Your task to perform on an android device: set default search engine in the chrome app Image 0: 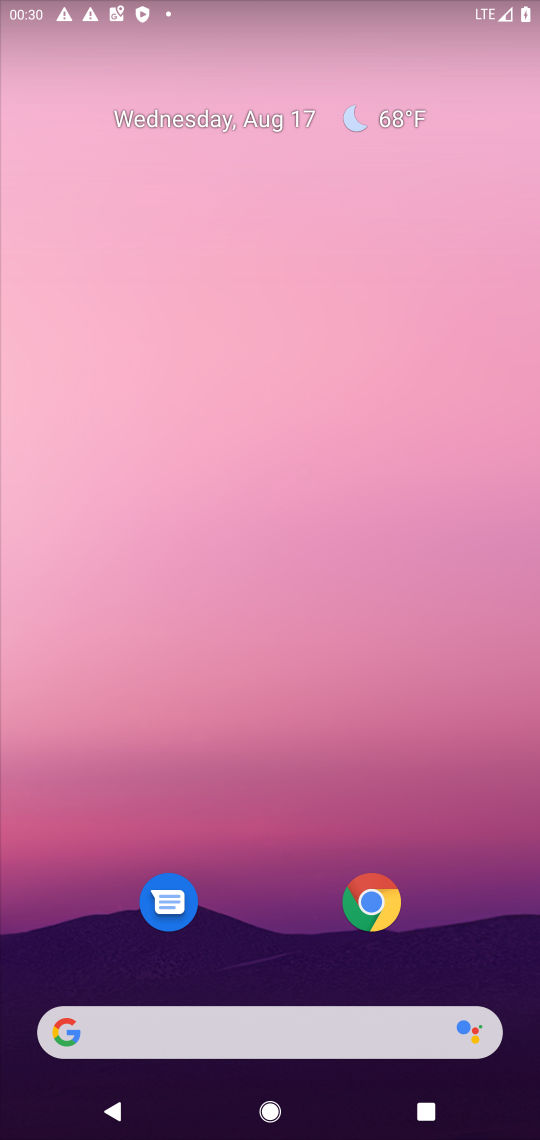
Step 0: drag from (251, 971) to (435, 241)
Your task to perform on an android device: set default search engine in the chrome app Image 1: 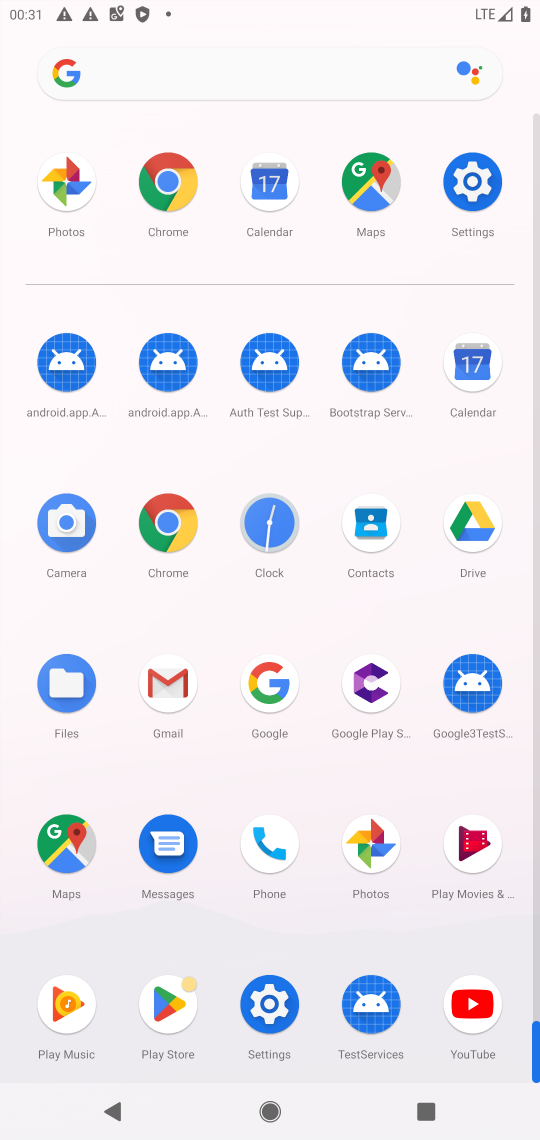
Step 1: click (181, 507)
Your task to perform on an android device: set default search engine in the chrome app Image 2: 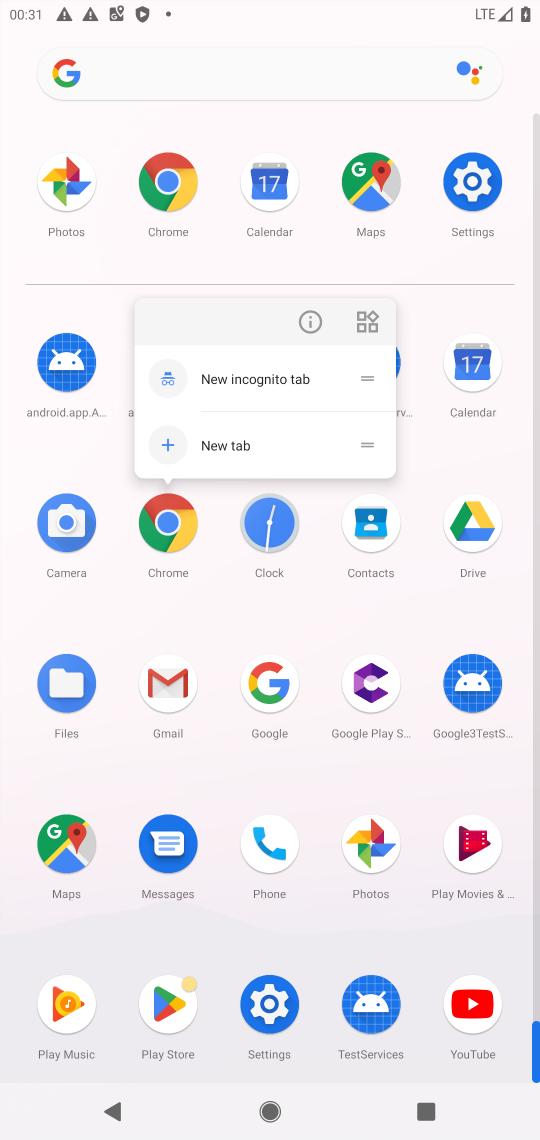
Step 2: click (181, 507)
Your task to perform on an android device: set default search engine in the chrome app Image 3: 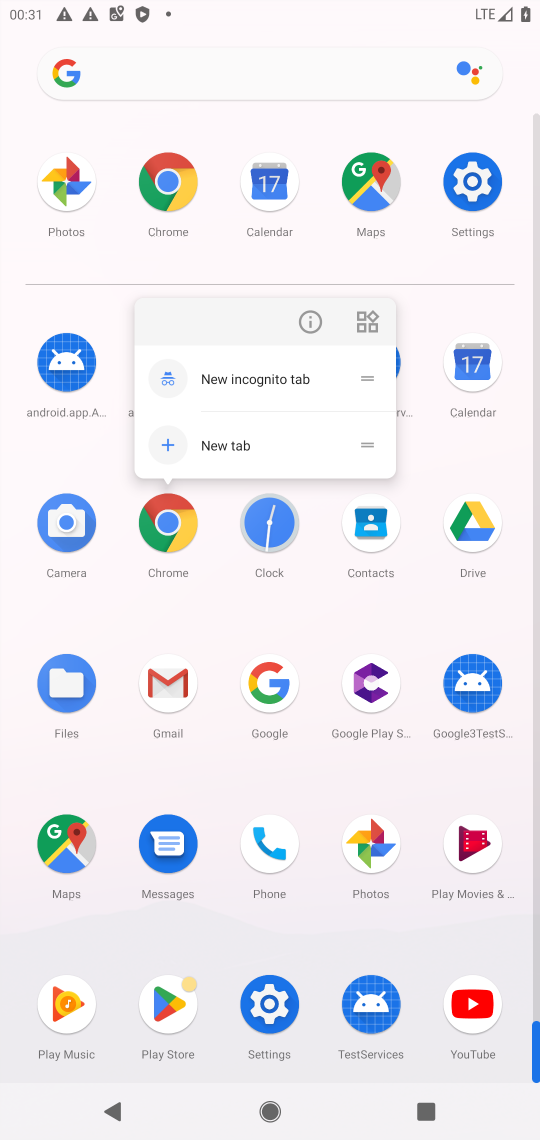
Step 3: click (183, 508)
Your task to perform on an android device: set default search engine in the chrome app Image 4: 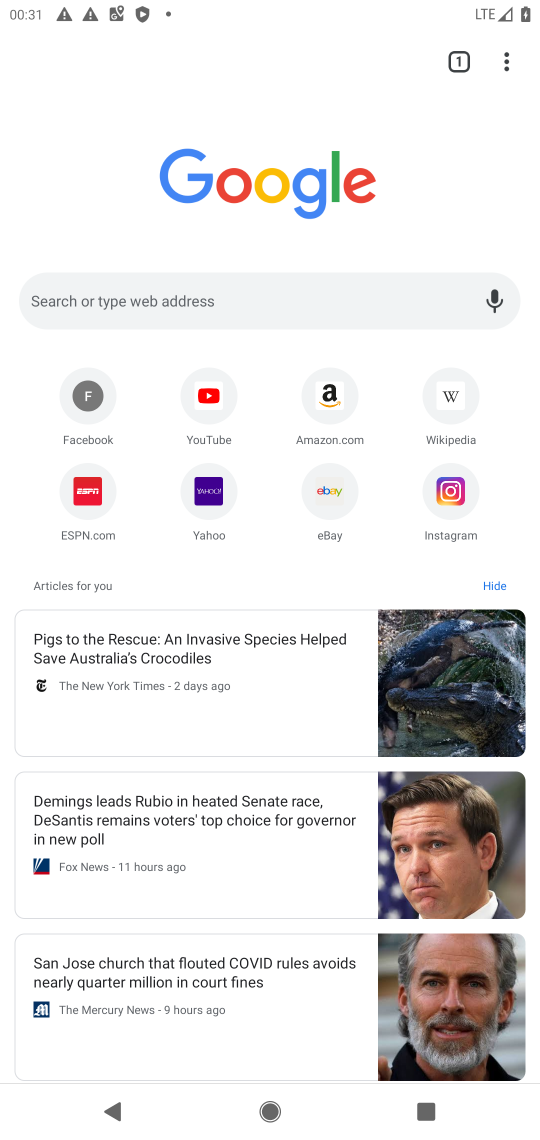
Step 4: click (499, 64)
Your task to perform on an android device: set default search engine in the chrome app Image 5: 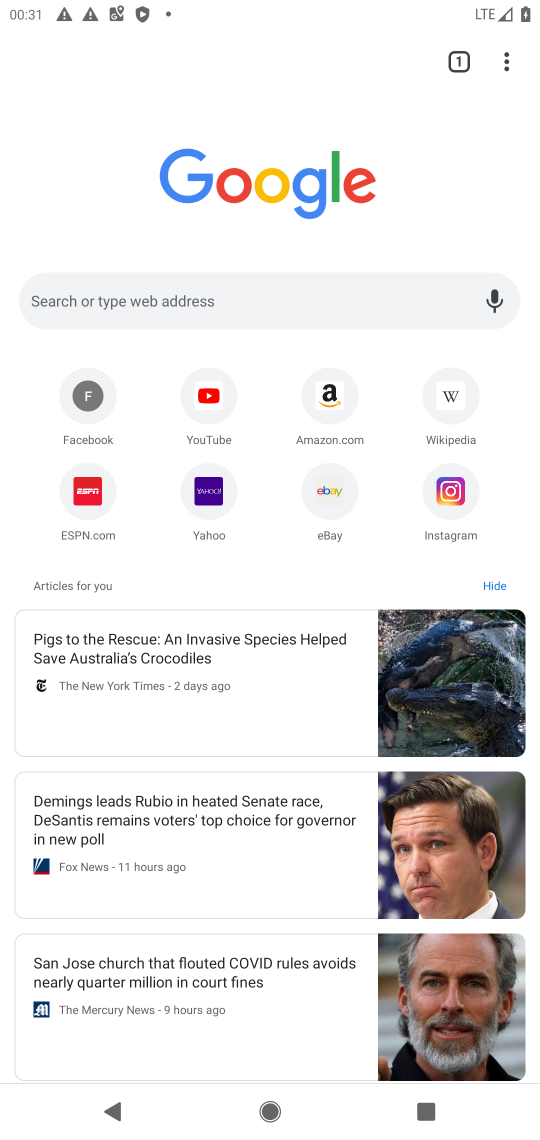
Step 5: click (499, 67)
Your task to perform on an android device: set default search engine in the chrome app Image 6: 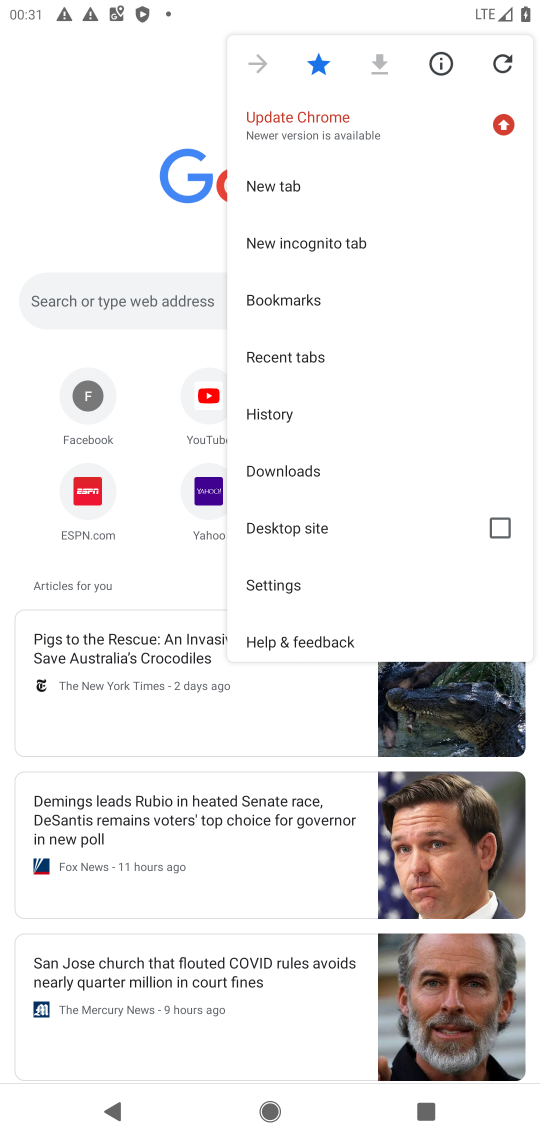
Step 6: click (297, 581)
Your task to perform on an android device: set default search engine in the chrome app Image 7: 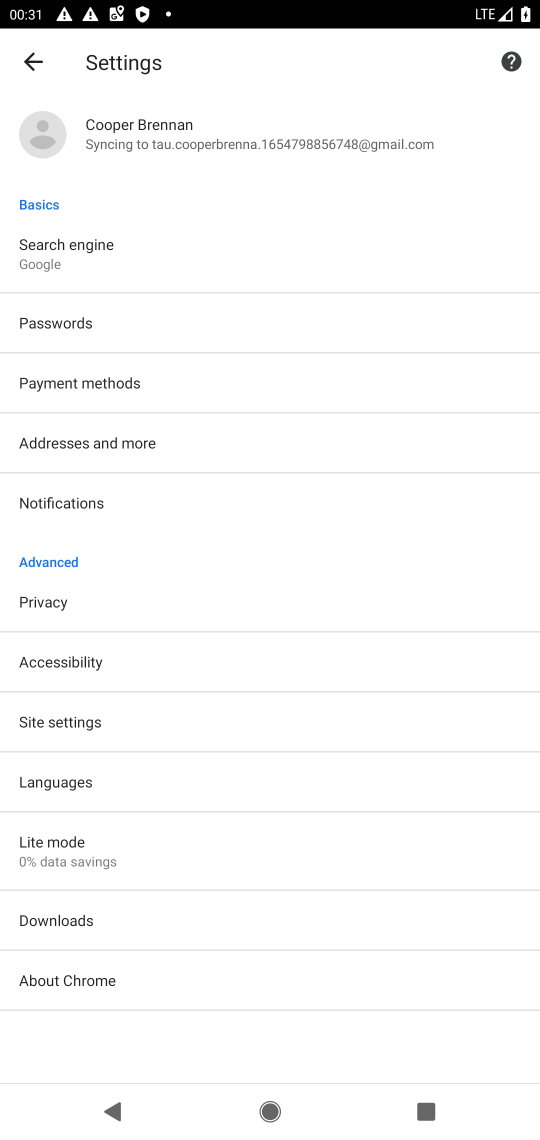
Step 7: click (128, 266)
Your task to perform on an android device: set default search engine in the chrome app Image 8: 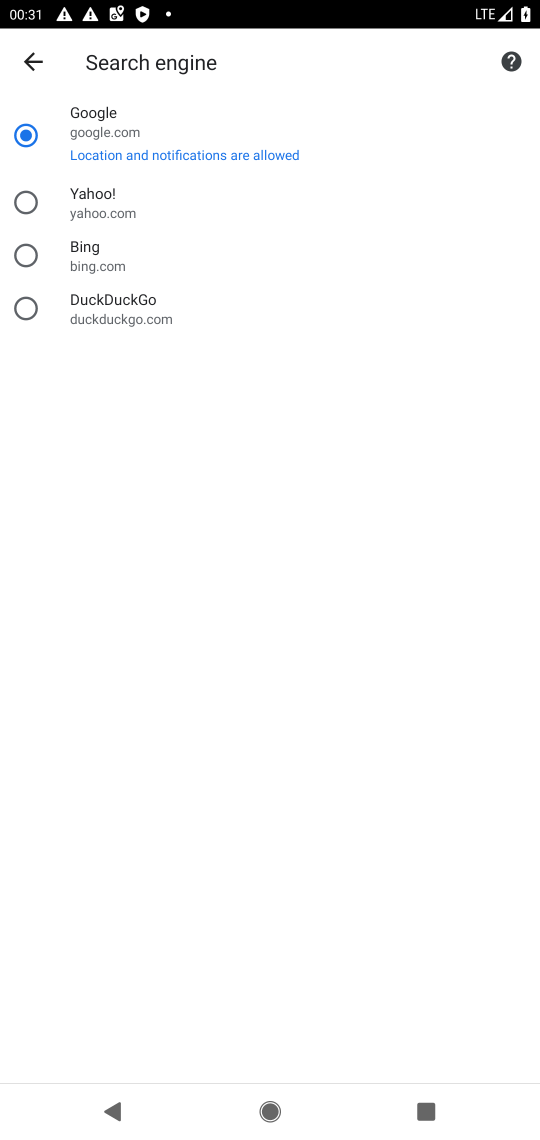
Step 8: task complete